Your task to perform on an android device: uninstall "Google Home" Image 0: 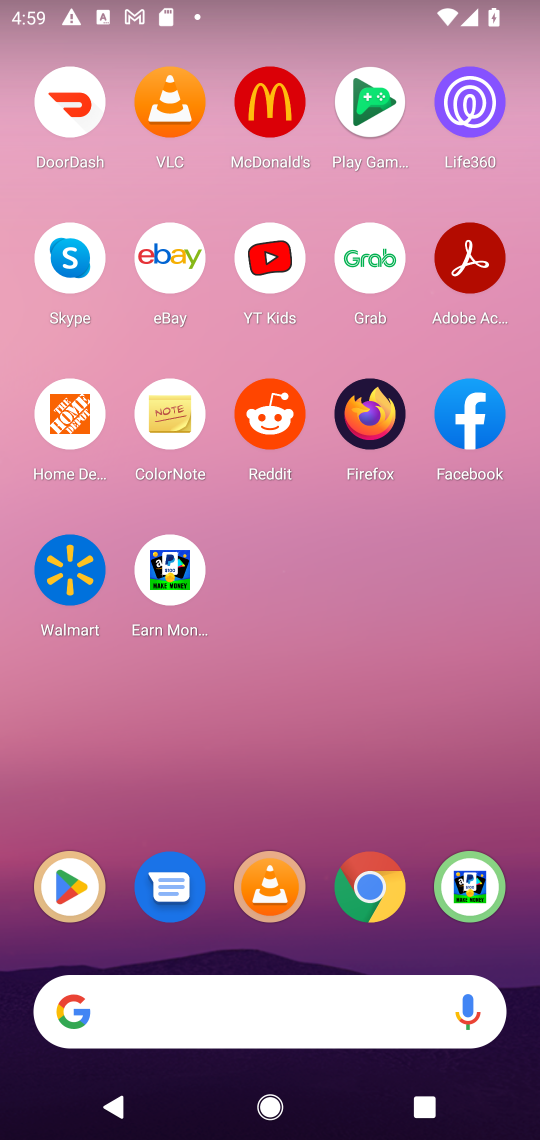
Step 0: drag from (289, 945) to (80, 17)
Your task to perform on an android device: uninstall "Google Home" Image 1: 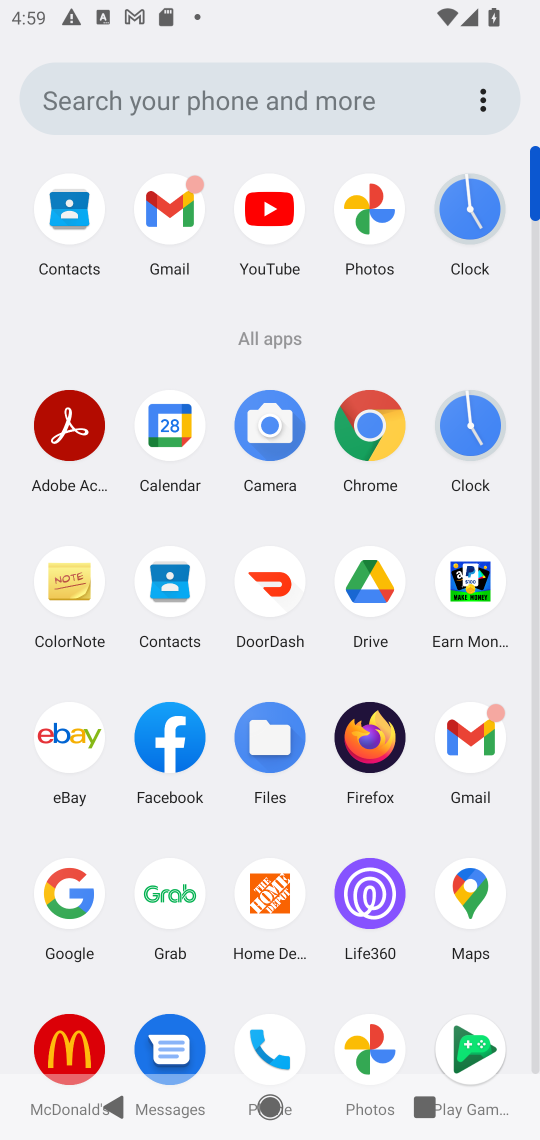
Step 1: drag from (319, 967) to (326, 614)
Your task to perform on an android device: uninstall "Google Home" Image 2: 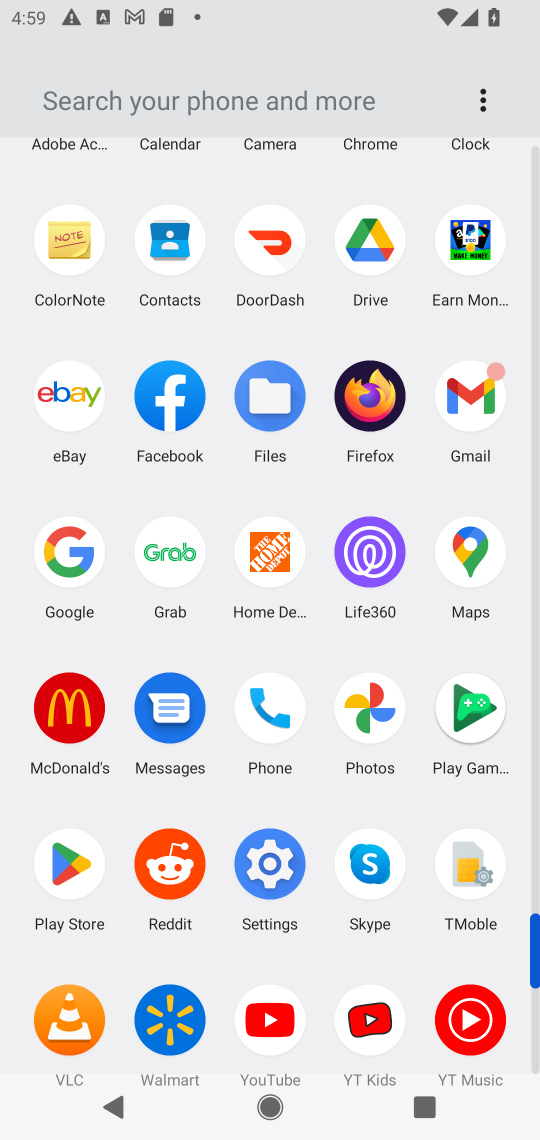
Step 2: click (68, 885)
Your task to perform on an android device: uninstall "Google Home" Image 3: 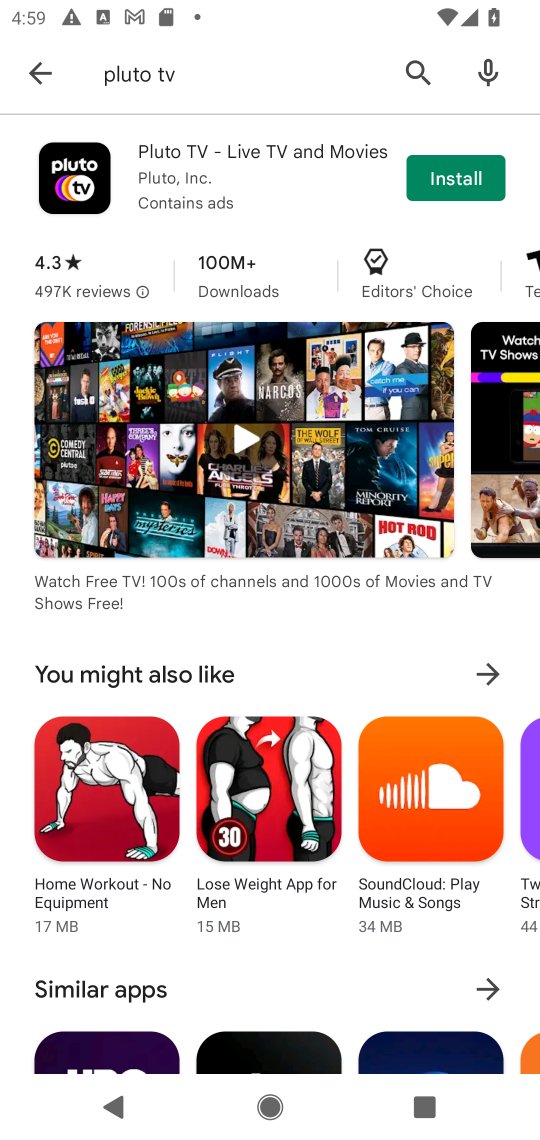
Step 3: click (138, 75)
Your task to perform on an android device: uninstall "Google Home" Image 4: 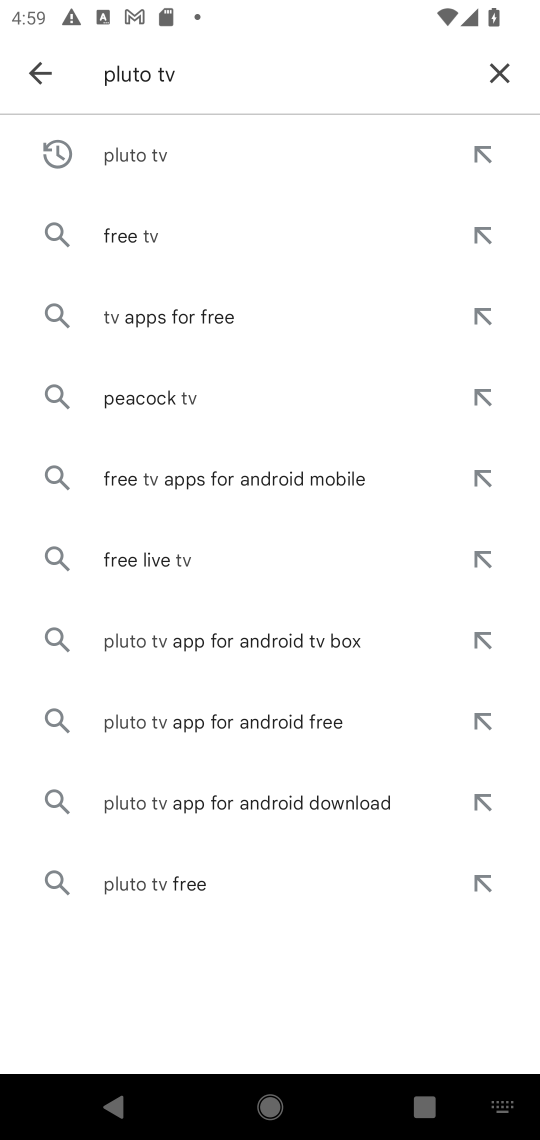
Step 4: click (511, 70)
Your task to perform on an android device: uninstall "Google Home" Image 5: 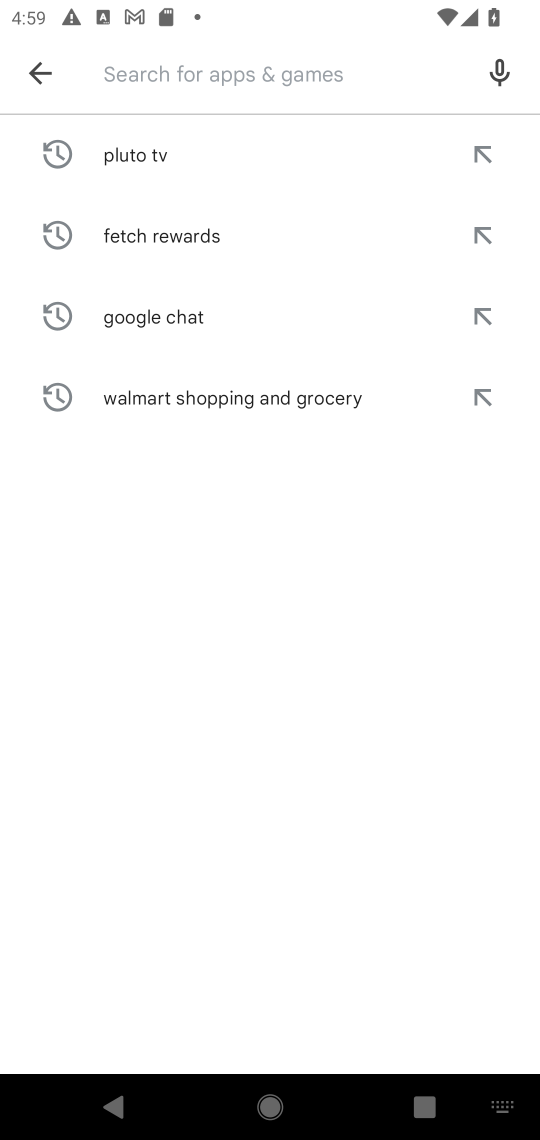
Step 5: type "google Home"
Your task to perform on an android device: uninstall "Google Home" Image 6: 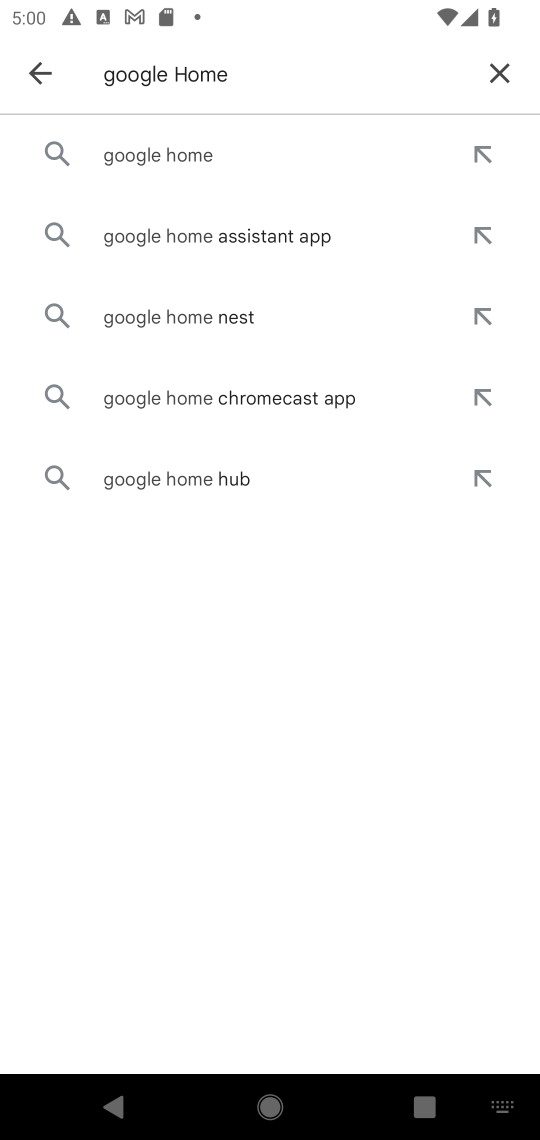
Step 6: click (214, 176)
Your task to perform on an android device: uninstall "Google Home" Image 7: 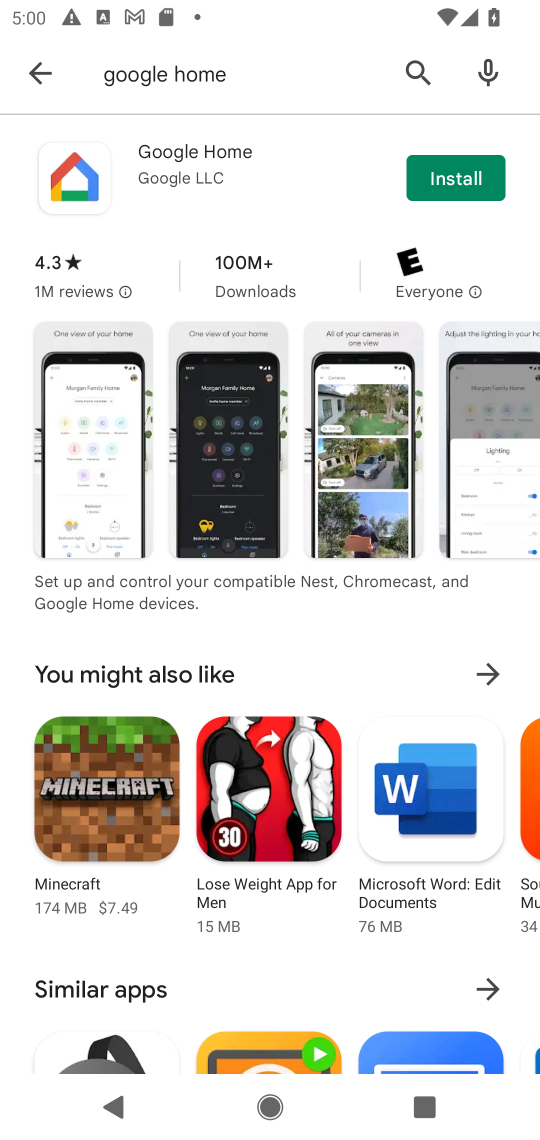
Step 7: task complete